Your task to perform on an android device: empty trash in google photos Image 0: 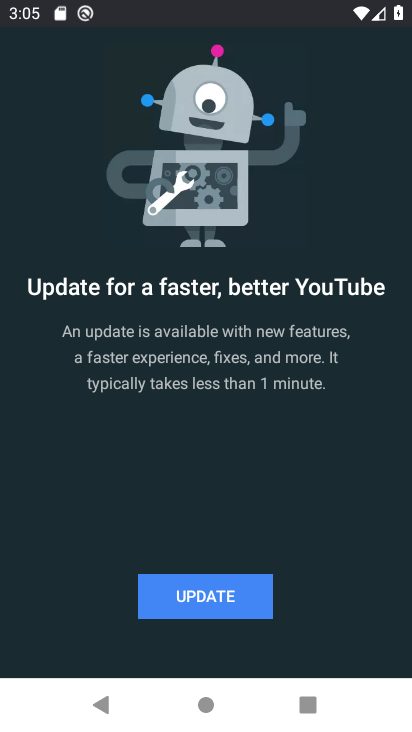
Step 0: press home button
Your task to perform on an android device: empty trash in google photos Image 1: 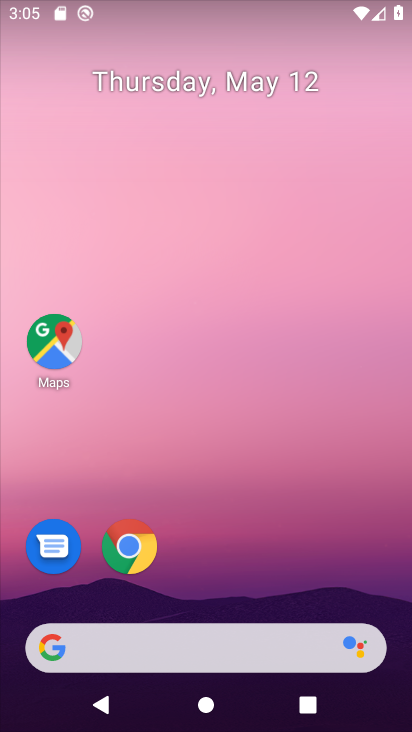
Step 1: drag from (258, 572) to (272, 269)
Your task to perform on an android device: empty trash in google photos Image 2: 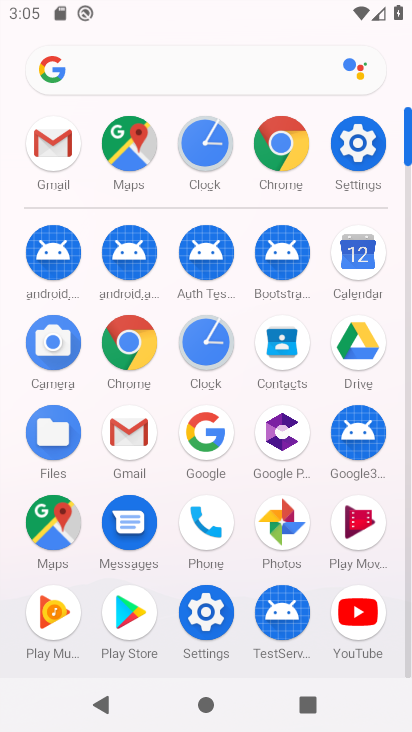
Step 2: click (282, 523)
Your task to perform on an android device: empty trash in google photos Image 3: 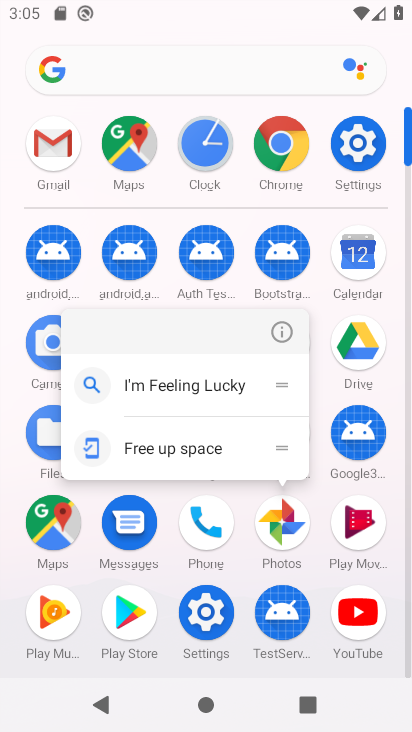
Step 3: click (287, 524)
Your task to perform on an android device: empty trash in google photos Image 4: 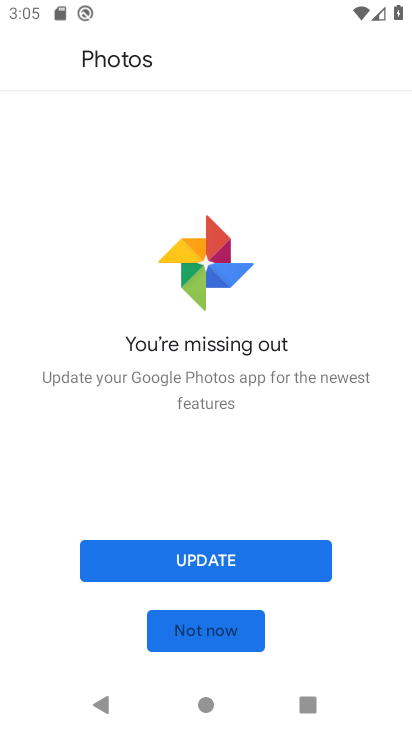
Step 4: click (226, 631)
Your task to perform on an android device: empty trash in google photos Image 5: 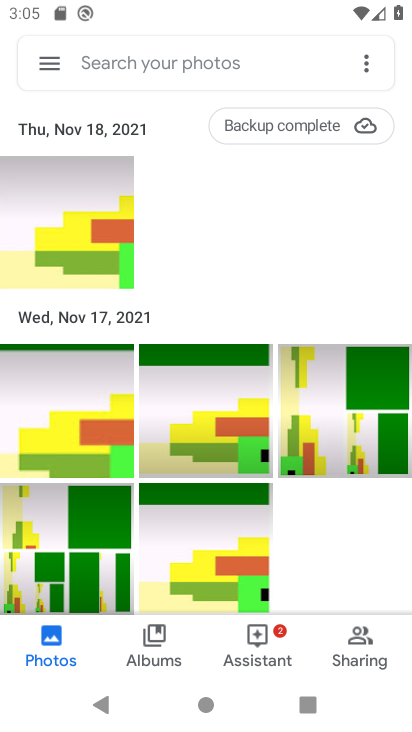
Step 5: click (42, 62)
Your task to perform on an android device: empty trash in google photos Image 6: 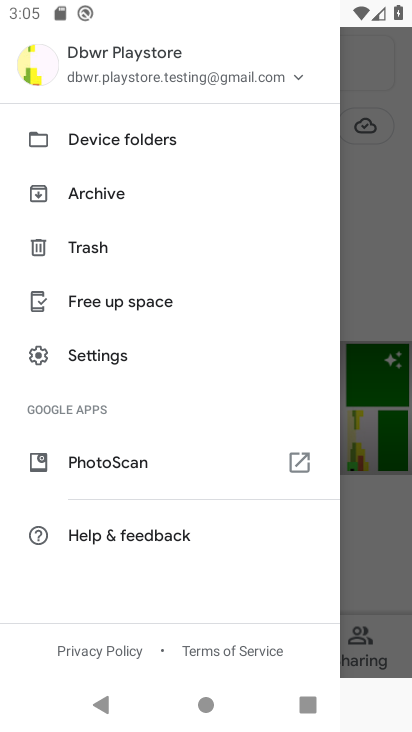
Step 6: click (109, 246)
Your task to perform on an android device: empty trash in google photos Image 7: 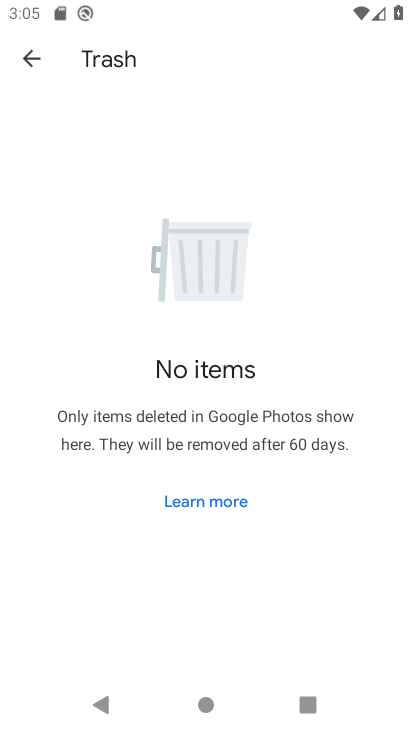
Step 7: task complete